Your task to perform on an android device: Empty the shopping cart on amazon. Image 0: 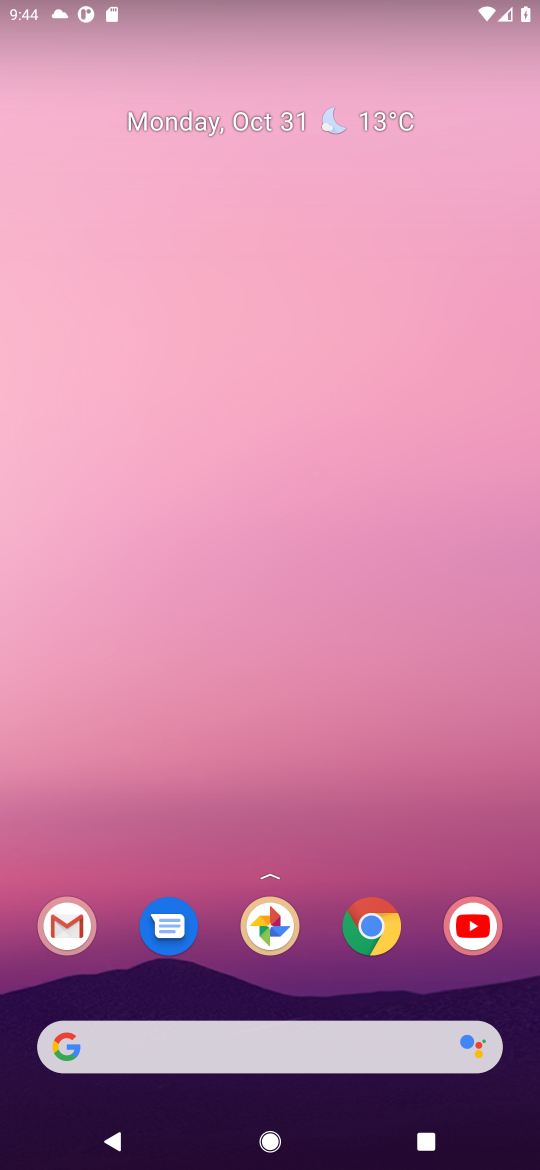
Step 0: click (374, 933)
Your task to perform on an android device: Empty the shopping cart on amazon. Image 1: 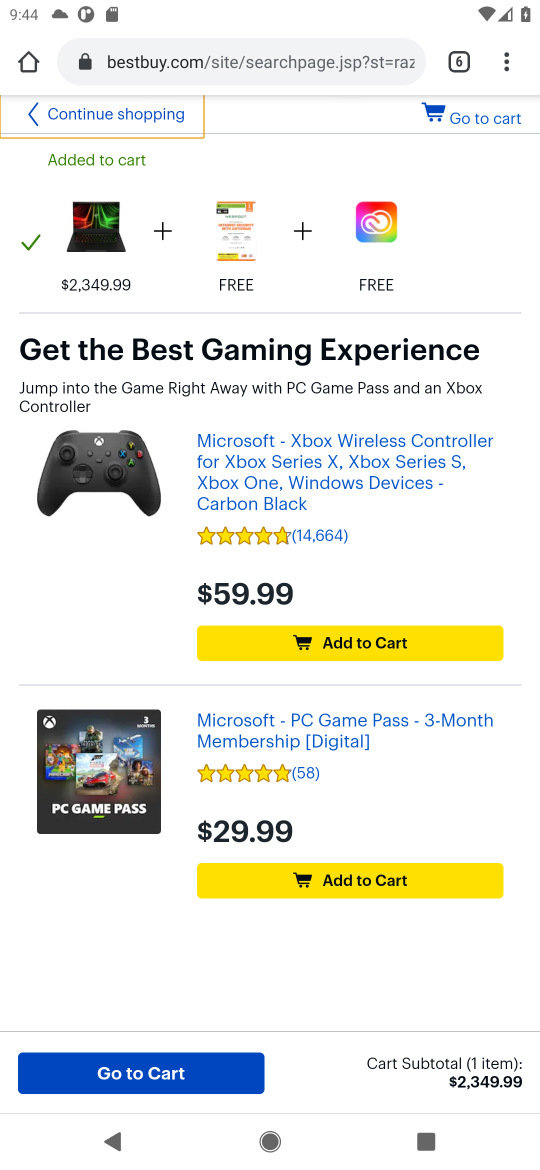
Step 1: click (456, 68)
Your task to perform on an android device: Empty the shopping cart on amazon. Image 2: 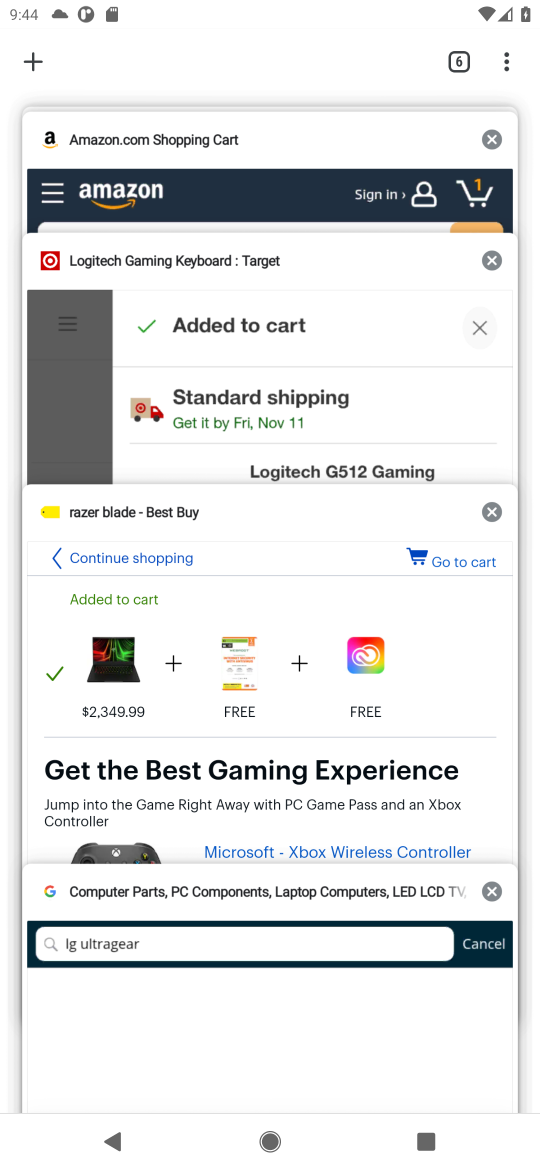
Step 2: click (296, 193)
Your task to perform on an android device: Empty the shopping cart on amazon. Image 3: 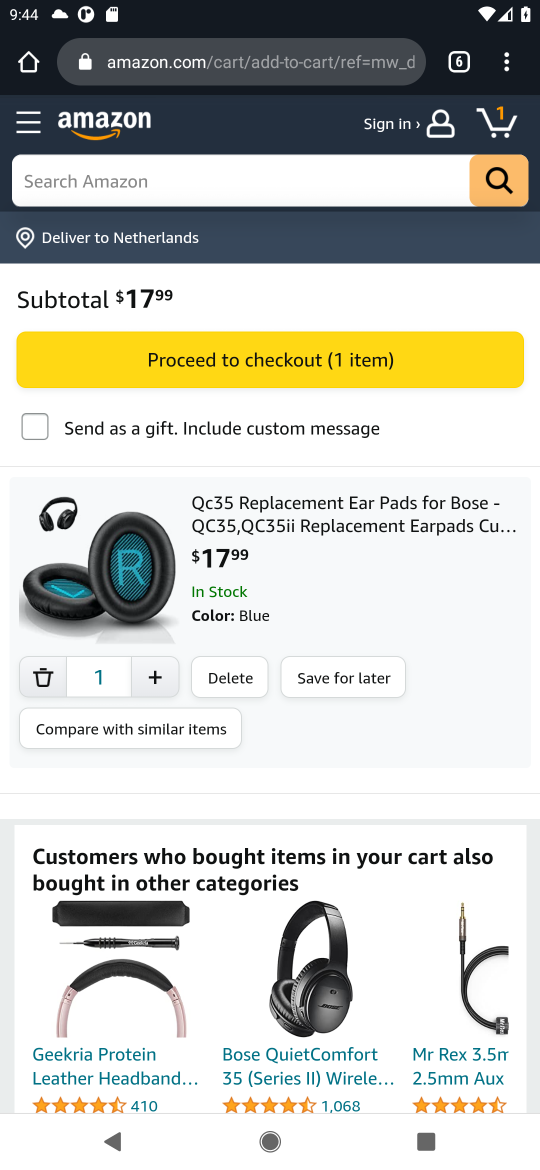
Step 3: click (224, 679)
Your task to perform on an android device: Empty the shopping cart on amazon. Image 4: 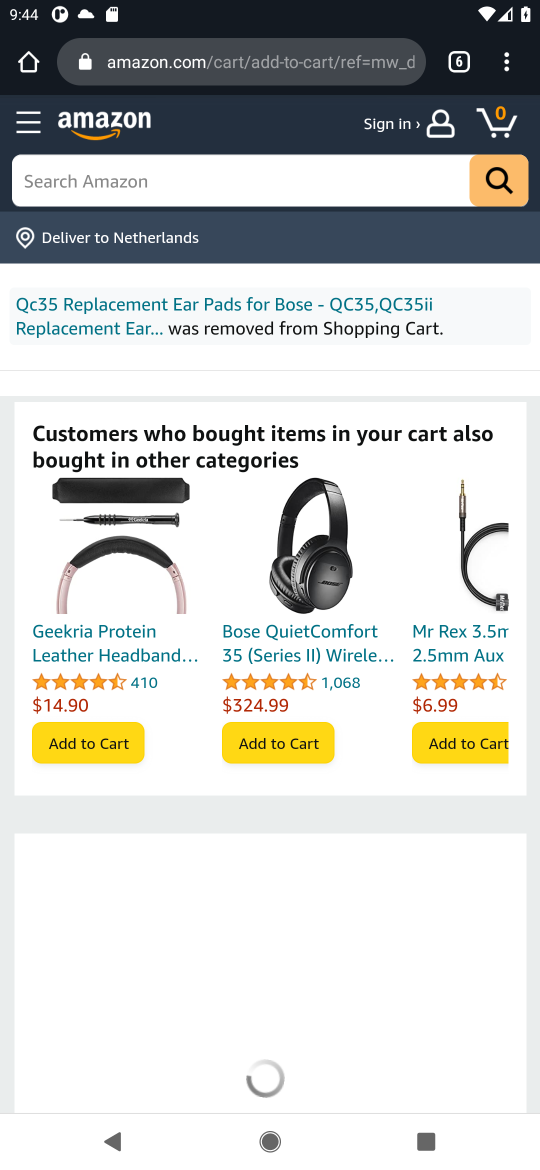
Step 4: task complete